Your task to perform on an android device: Open settings Image 0: 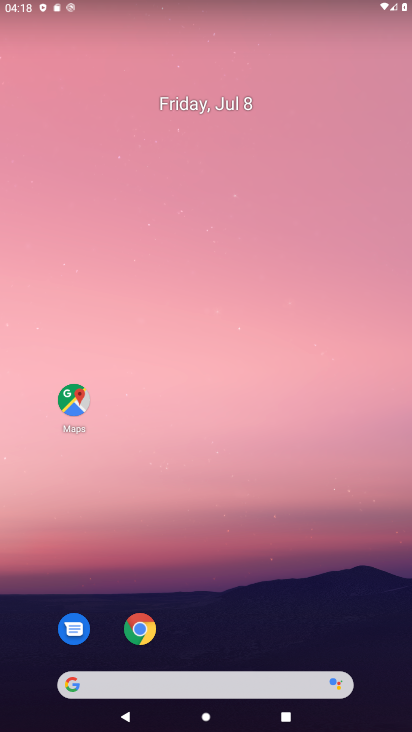
Step 0: drag from (250, 715) to (251, 191)
Your task to perform on an android device: Open settings Image 1: 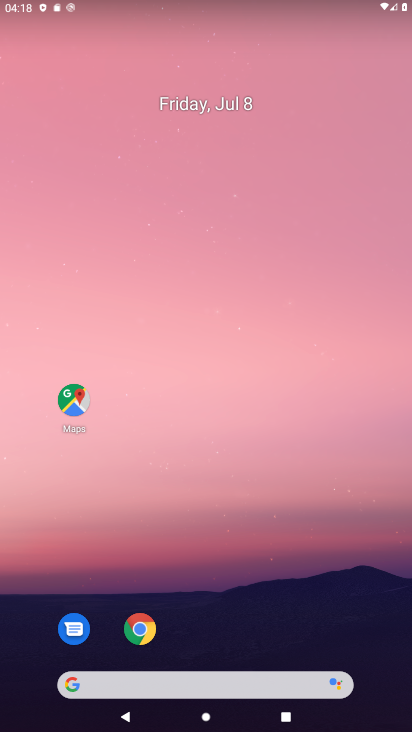
Step 1: drag from (242, 728) to (262, 0)
Your task to perform on an android device: Open settings Image 2: 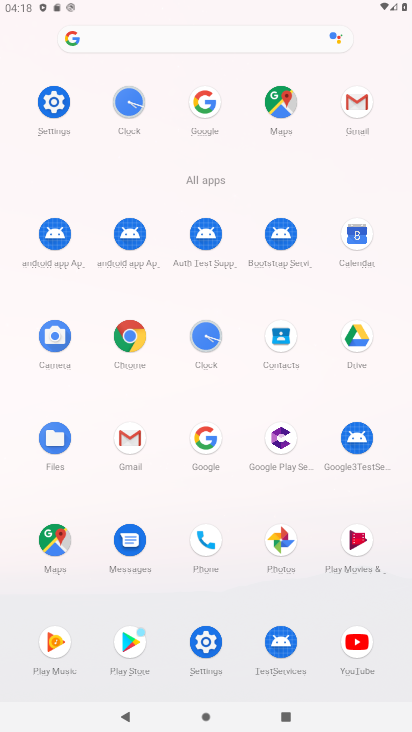
Step 2: click (54, 97)
Your task to perform on an android device: Open settings Image 3: 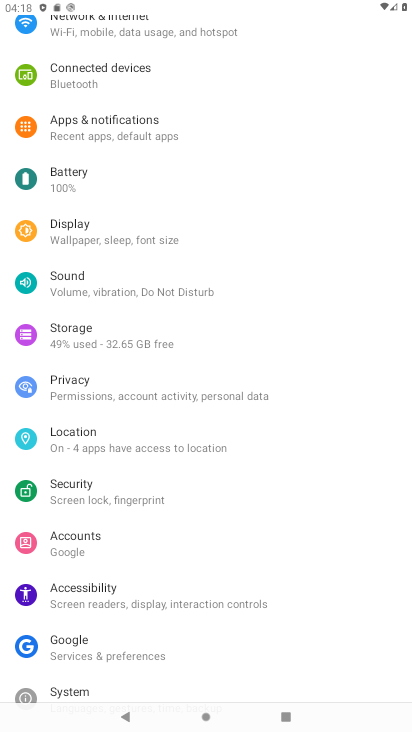
Step 3: task complete